Your task to perform on an android device: Open Google Maps Image 0: 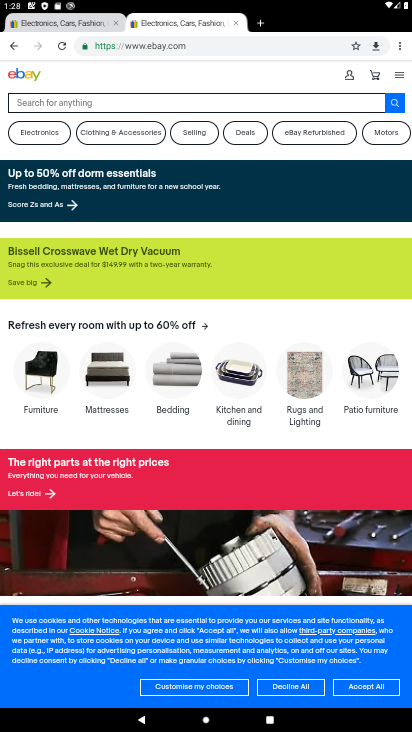
Step 0: press home button
Your task to perform on an android device: Open Google Maps Image 1: 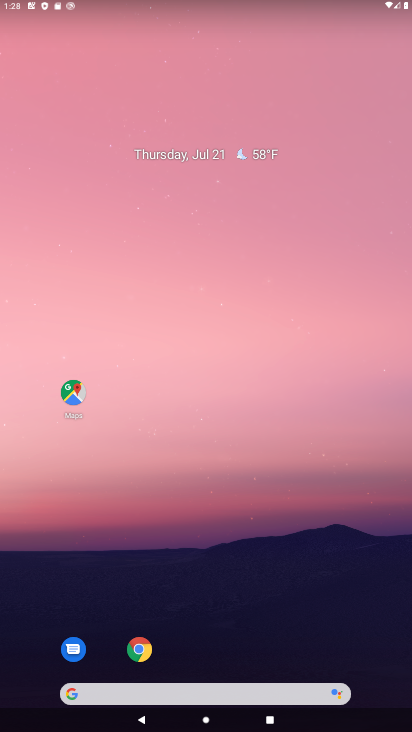
Step 1: drag from (233, 667) to (198, 179)
Your task to perform on an android device: Open Google Maps Image 2: 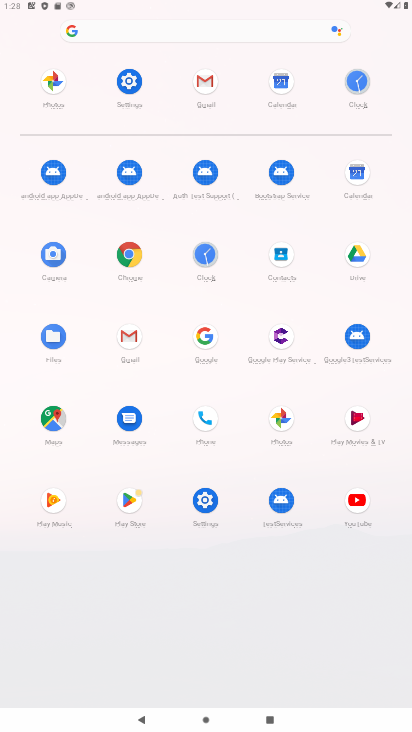
Step 2: click (63, 92)
Your task to perform on an android device: Open Google Maps Image 3: 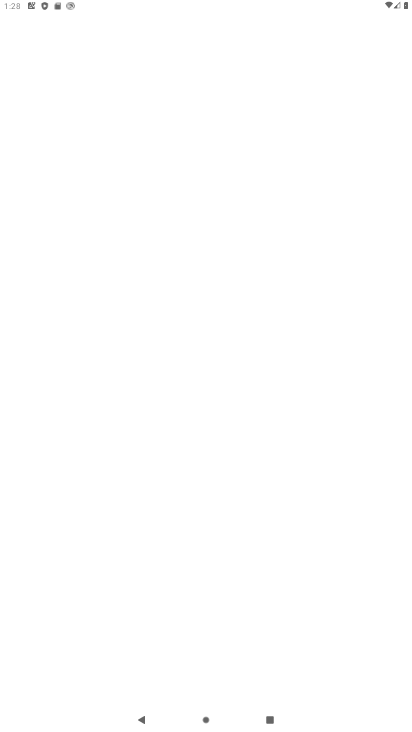
Step 3: task complete